Your task to perform on an android device: check out phone information Image 0: 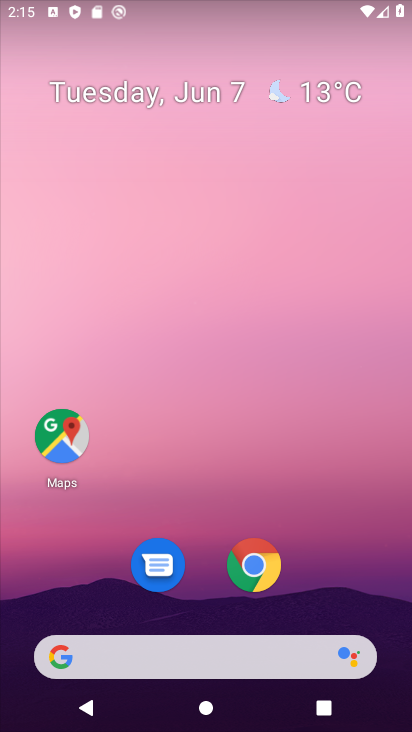
Step 0: drag from (201, 596) to (201, 431)
Your task to perform on an android device: check out phone information Image 1: 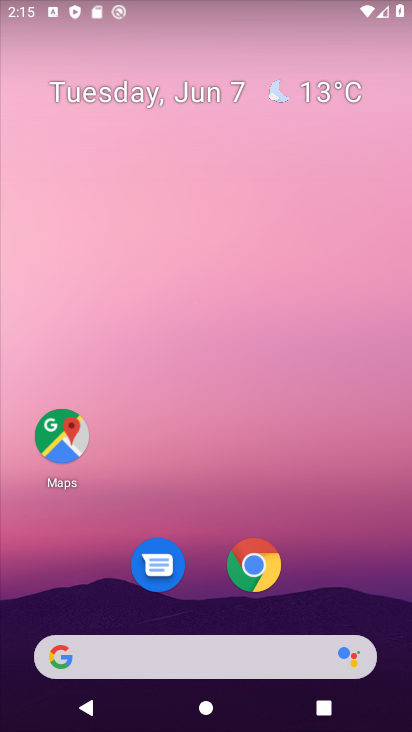
Step 1: drag from (198, 611) to (223, 360)
Your task to perform on an android device: check out phone information Image 2: 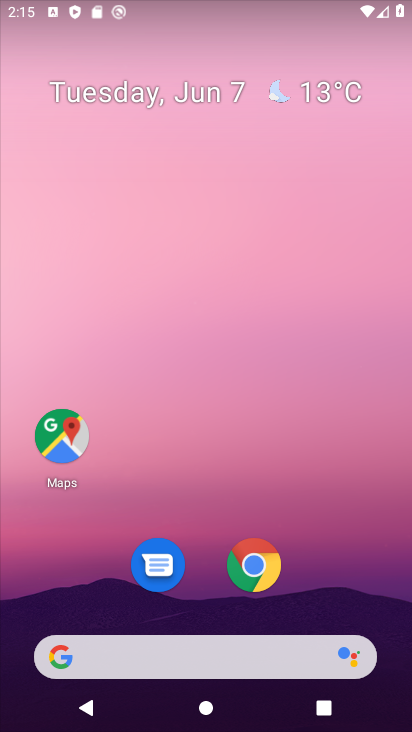
Step 2: drag from (292, 583) to (282, 200)
Your task to perform on an android device: check out phone information Image 3: 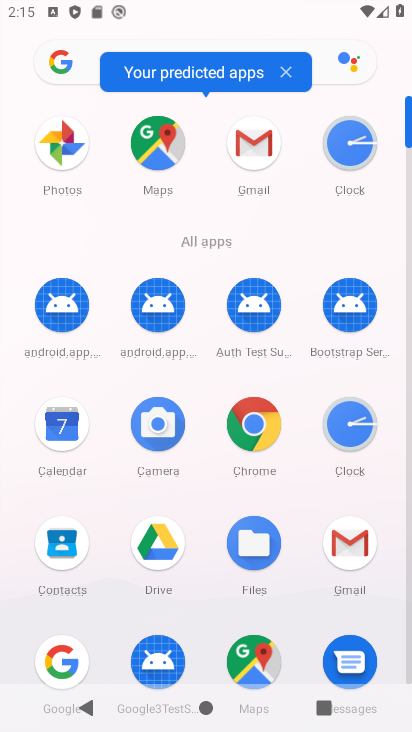
Step 3: drag from (273, 572) to (275, 449)
Your task to perform on an android device: check out phone information Image 4: 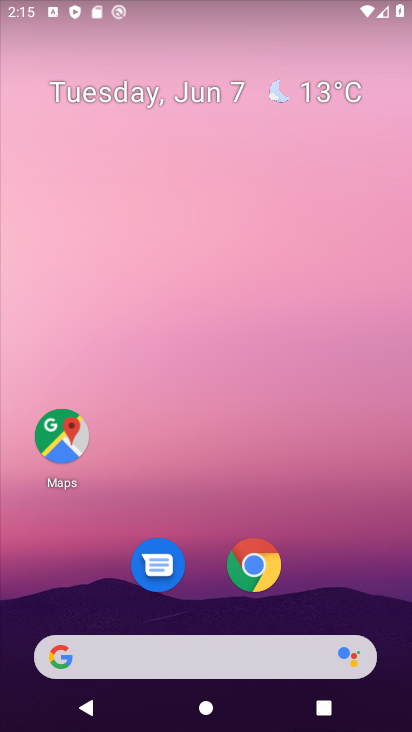
Step 4: drag from (169, 607) to (188, 378)
Your task to perform on an android device: check out phone information Image 5: 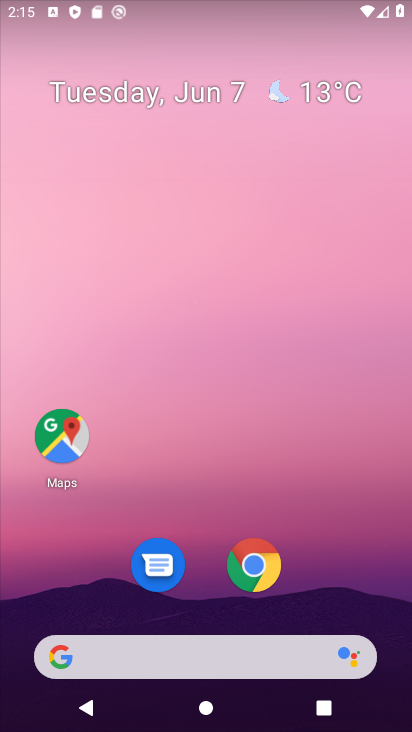
Step 5: drag from (196, 600) to (197, 466)
Your task to perform on an android device: check out phone information Image 6: 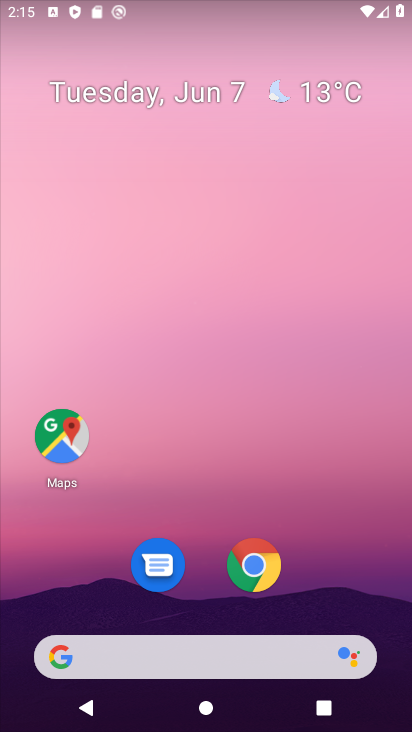
Step 6: drag from (203, 608) to (215, 545)
Your task to perform on an android device: check out phone information Image 7: 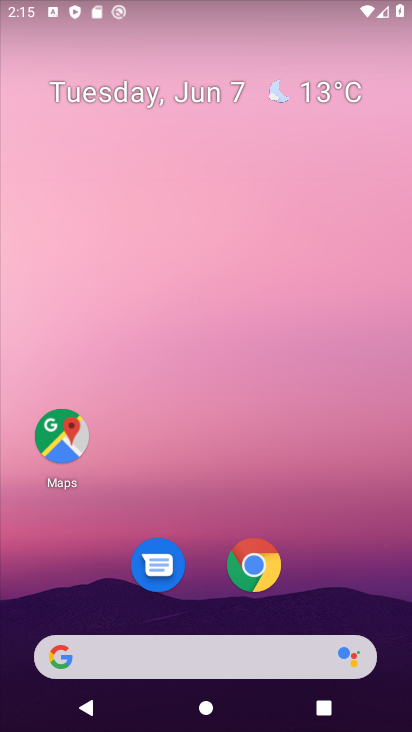
Step 7: drag from (199, 596) to (197, 173)
Your task to perform on an android device: check out phone information Image 8: 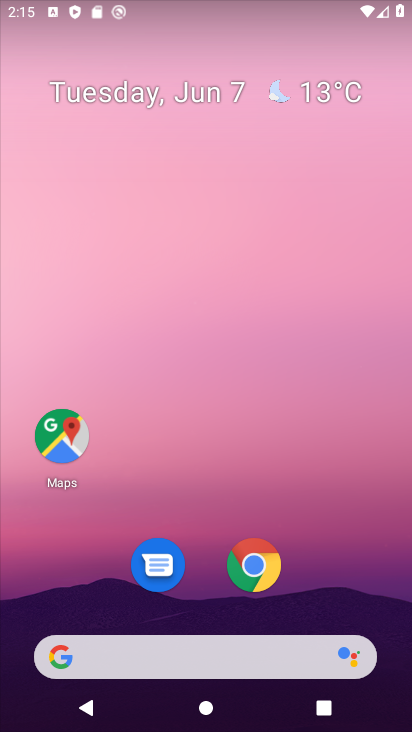
Step 8: drag from (280, 583) to (274, 212)
Your task to perform on an android device: check out phone information Image 9: 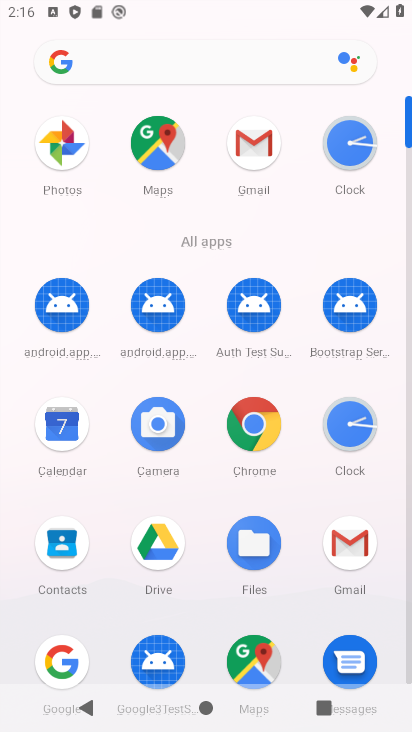
Step 9: drag from (244, 568) to (207, 272)
Your task to perform on an android device: check out phone information Image 10: 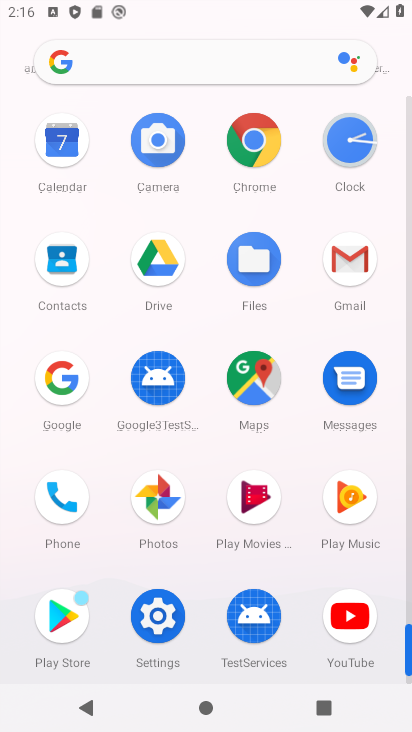
Step 10: click (154, 639)
Your task to perform on an android device: check out phone information Image 11: 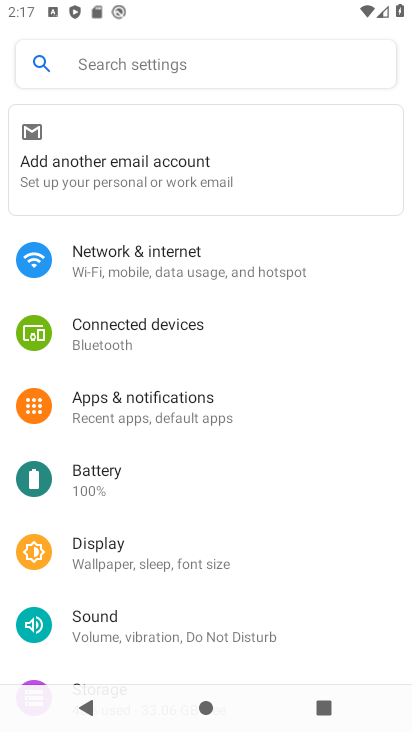
Step 11: drag from (135, 628) to (122, 220)
Your task to perform on an android device: check out phone information Image 12: 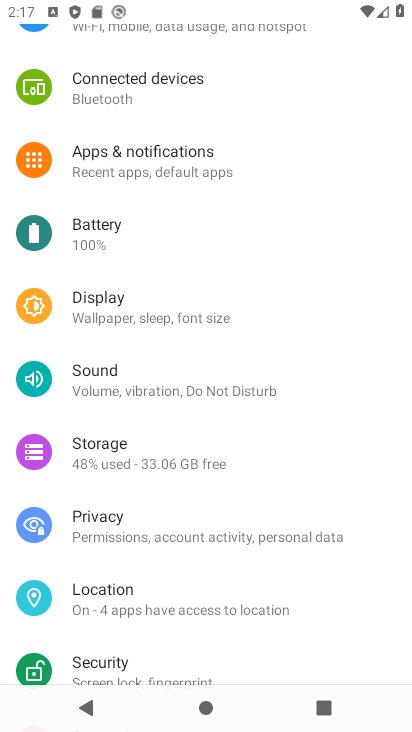
Step 12: drag from (167, 522) to (163, 438)
Your task to perform on an android device: check out phone information Image 13: 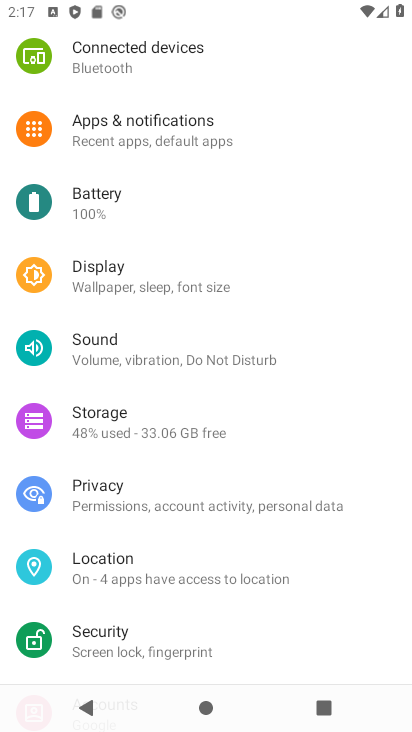
Step 13: drag from (138, 597) to (113, 320)
Your task to perform on an android device: check out phone information Image 14: 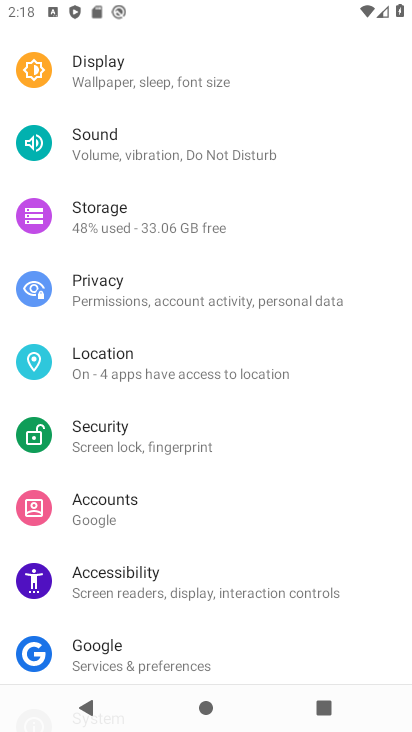
Step 14: drag from (86, 662) to (82, 405)
Your task to perform on an android device: check out phone information Image 15: 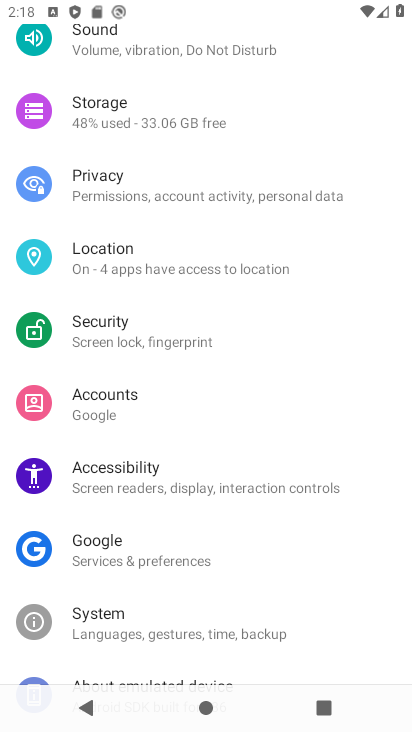
Step 15: drag from (130, 645) to (124, 440)
Your task to perform on an android device: check out phone information Image 16: 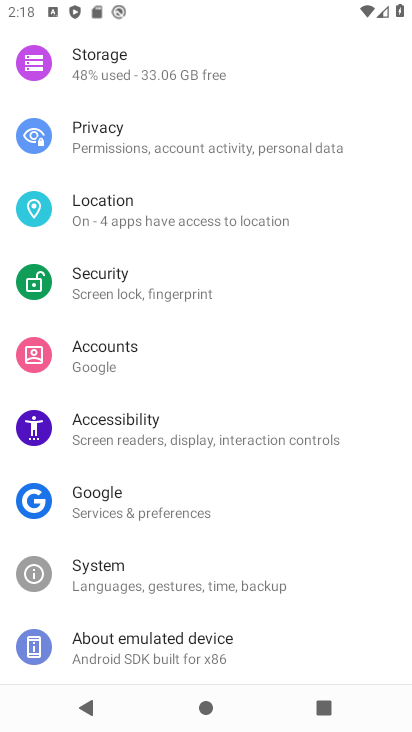
Step 16: click (151, 657)
Your task to perform on an android device: check out phone information Image 17: 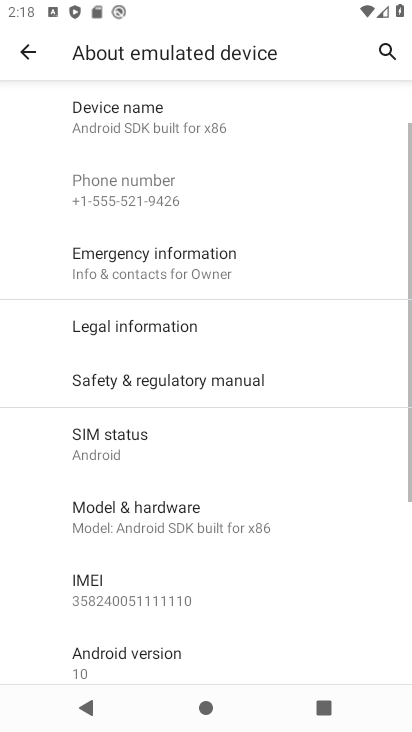
Step 17: task complete